Your task to perform on an android device: Open CNN.com Image 0: 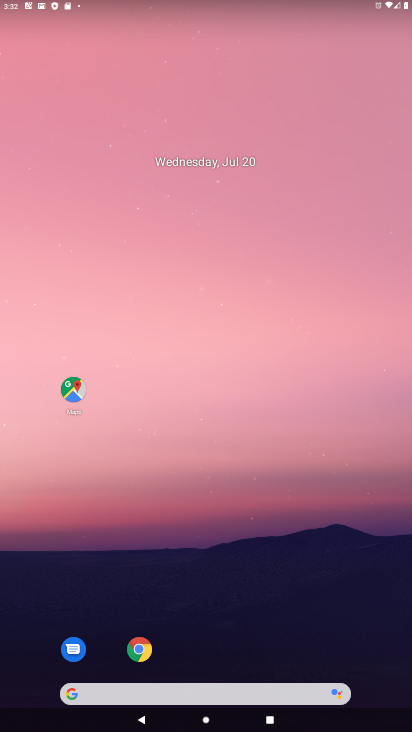
Step 0: click (137, 650)
Your task to perform on an android device: Open CNN.com Image 1: 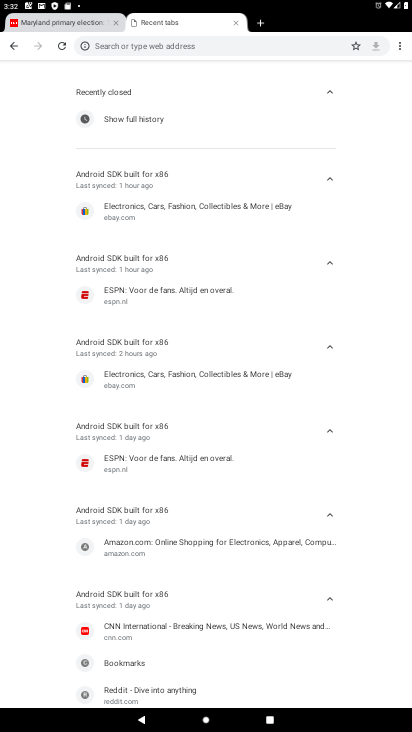
Step 1: click (179, 47)
Your task to perform on an android device: Open CNN.com Image 2: 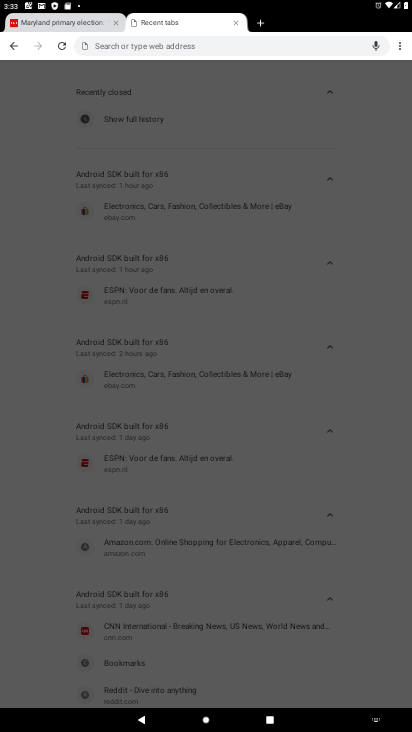
Step 2: type "CNN.com"
Your task to perform on an android device: Open CNN.com Image 3: 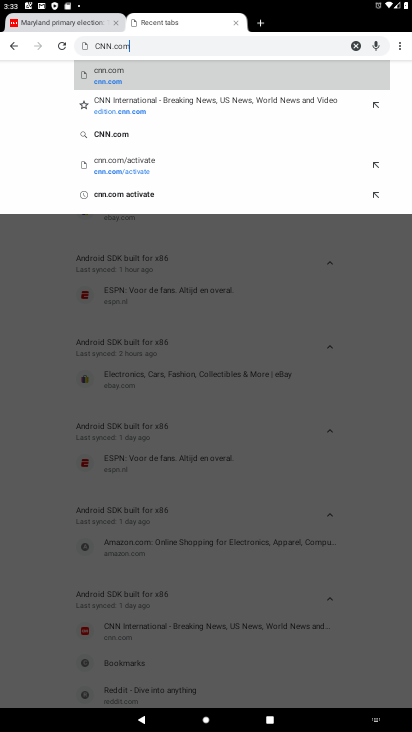
Step 3: click (120, 135)
Your task to perform on an android device: Open CNN.com Image 4: 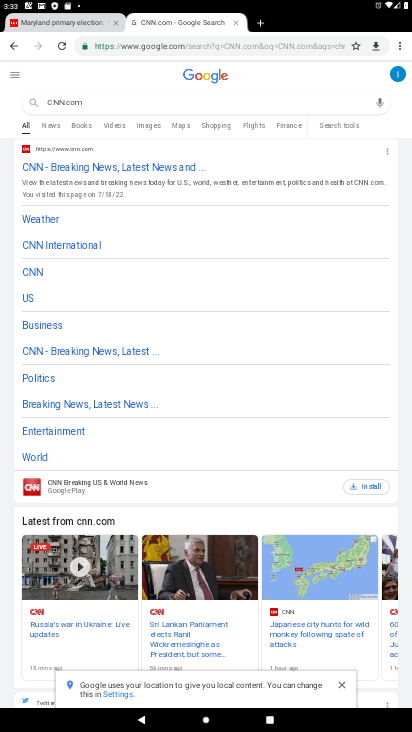
Step 4: click (105, 171)
Your task to perform on an android device: Open CNN.com Image 5: 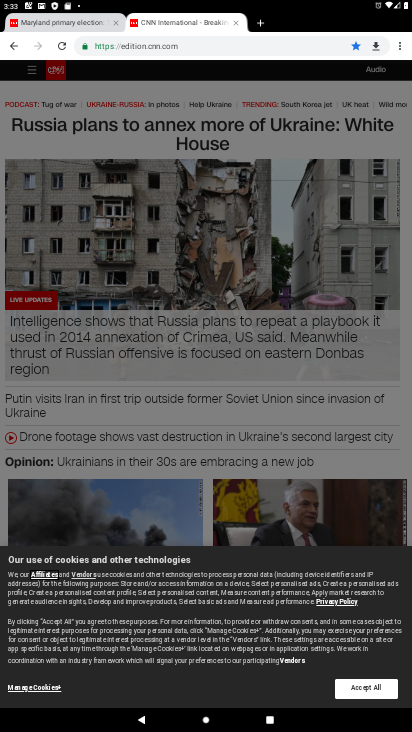
Step 5: click (362, 690)
Your task to perform on an android device: Open CNN.com Image 6: 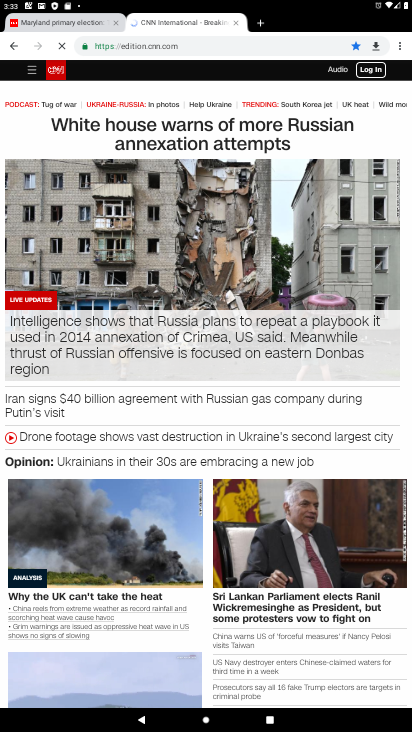
Step 6: task complete